Your task to perform on an android device: Open location settings Image 0: 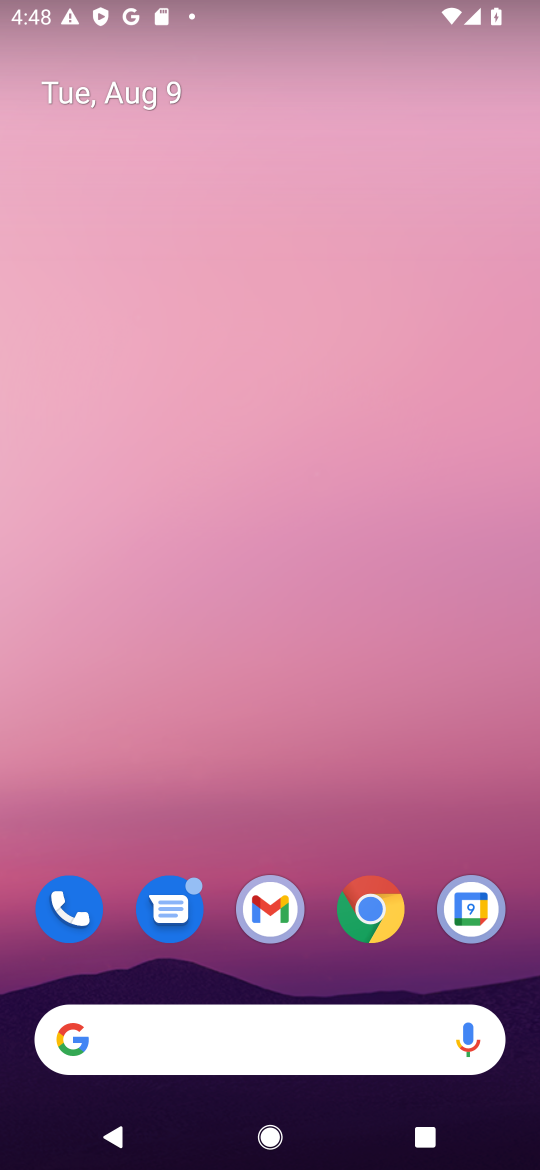
Step 0: drag from (347, 847) to (322, 144)
Your task to perform on an android device: Open location settings Image 1: 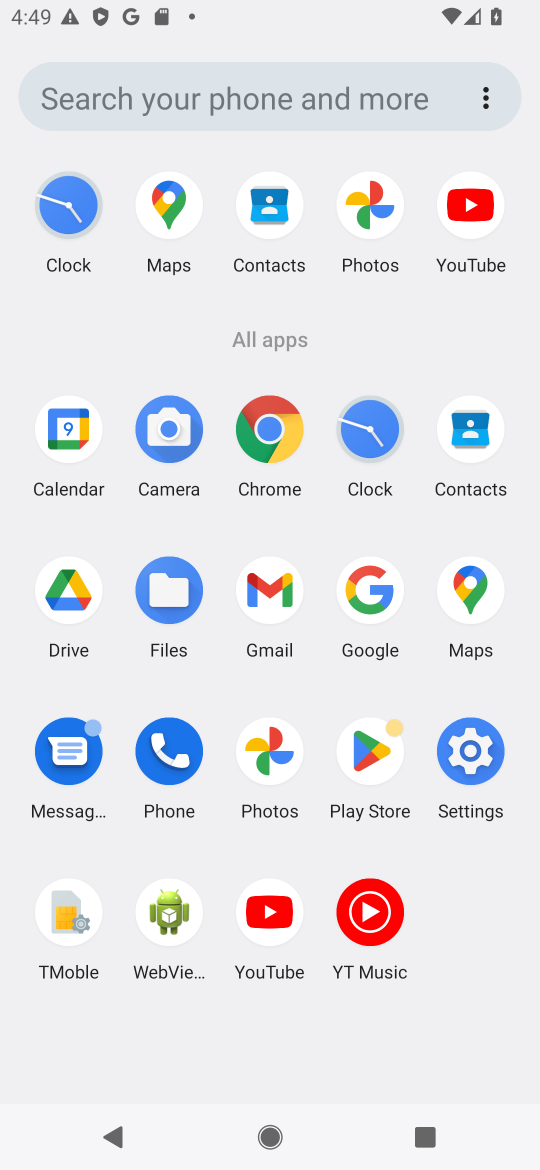
Step 1: click (477, 761)
Your task to perform on an android device: Open location settings Image 2: 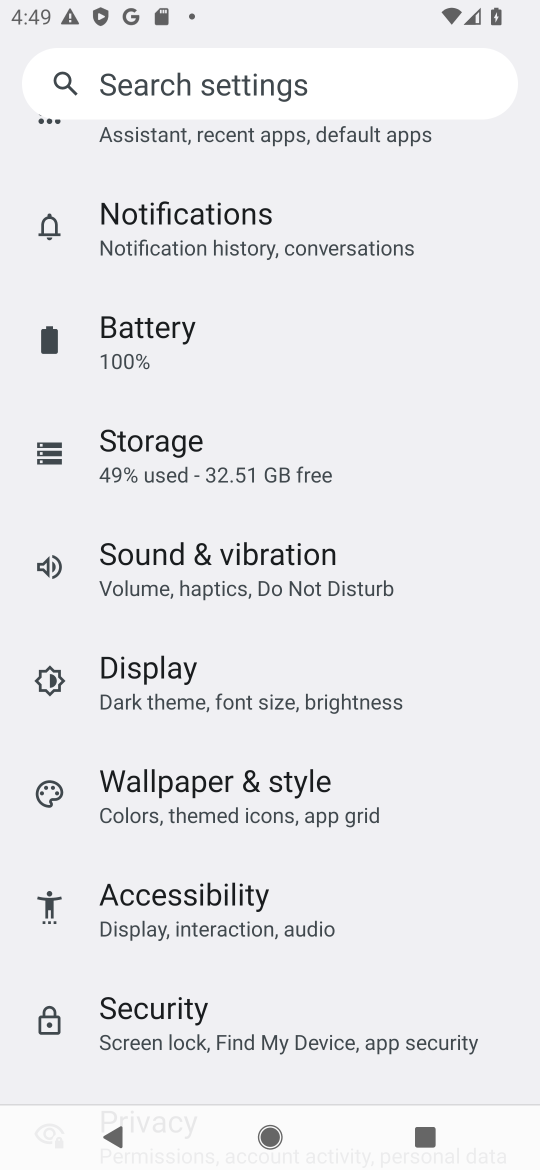
Step 2: click (161, 304)
Your task to perform on an android device: Open location settings Image 3: 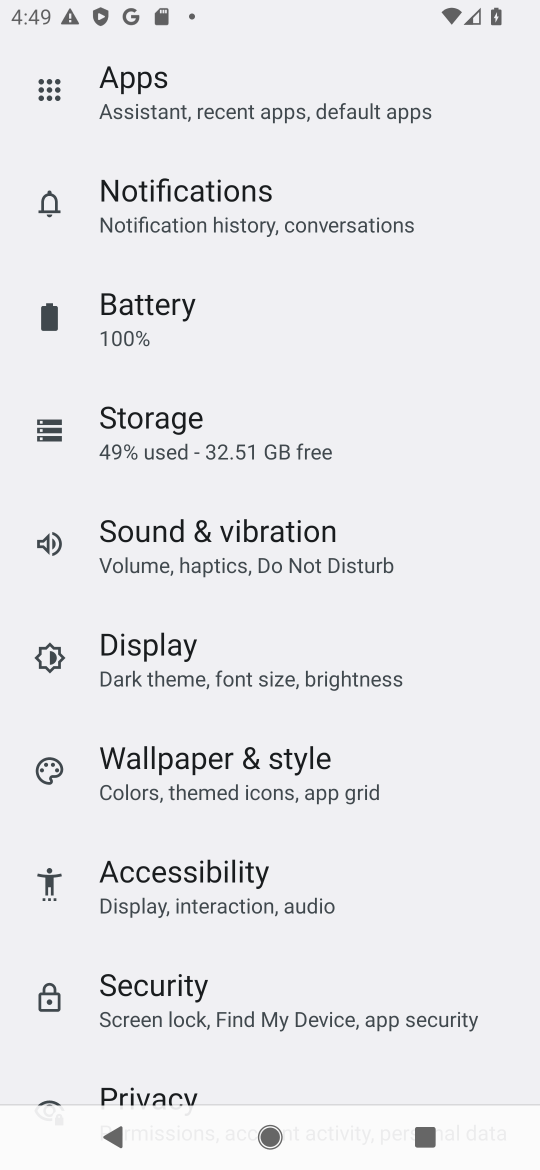
Step 3: drag from (285, 966) to (253, 518)
Your task to perform on an android device: Open location settings Image 4: 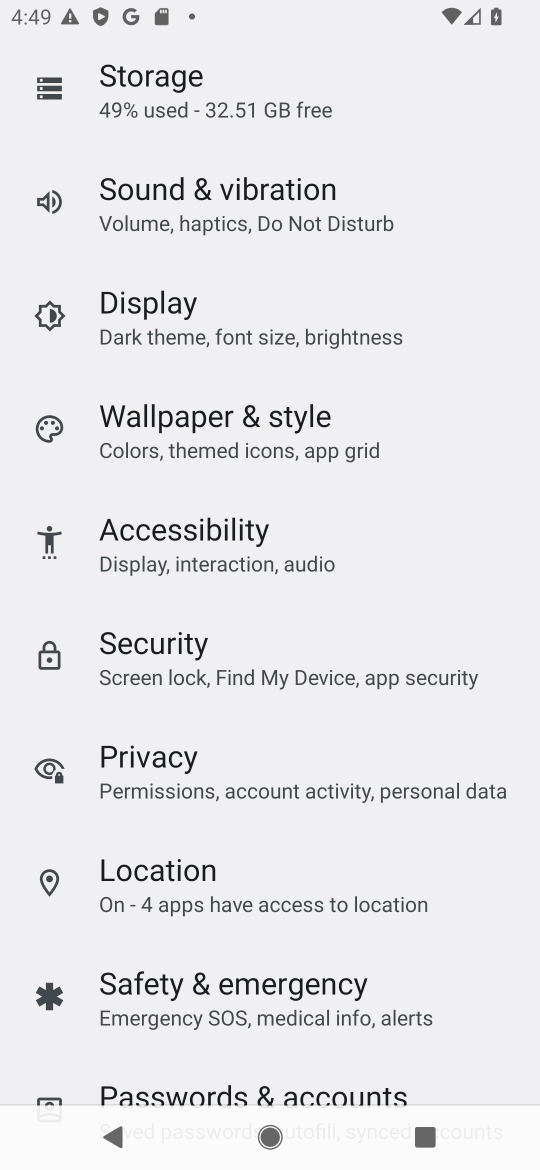
Step 4: click (164, 872)
Your task to perform on an android device: Open location settings Image 5: 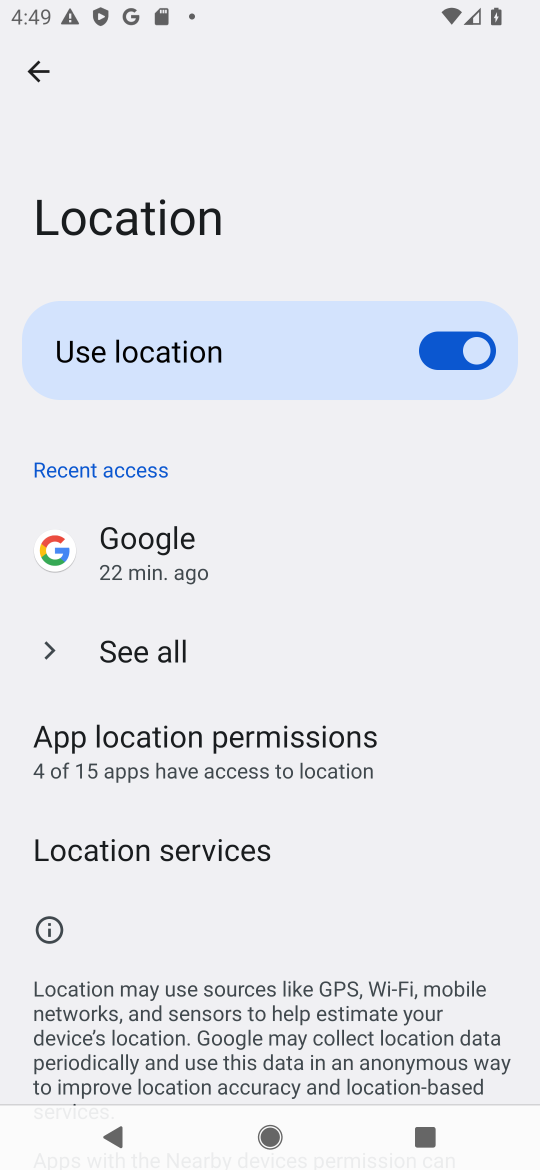
Step 5: task complete